Your task to perform on an android device: find which apps use the phone's location Image 0: 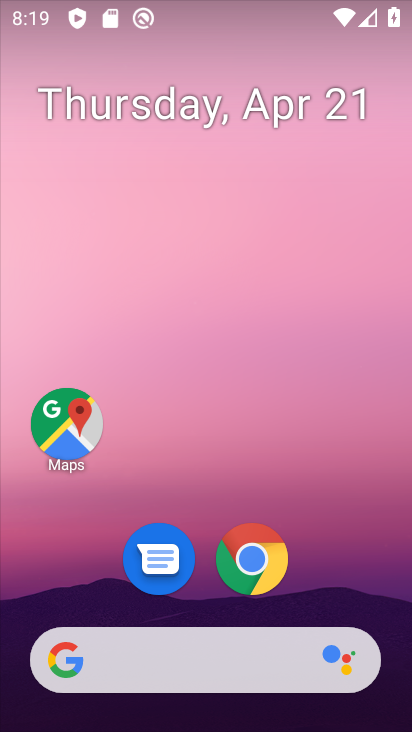
Step 0: drag from (337, 588) to (300, 183)
Your task to perform on an android device: find which apps use the phone's location Image 1: 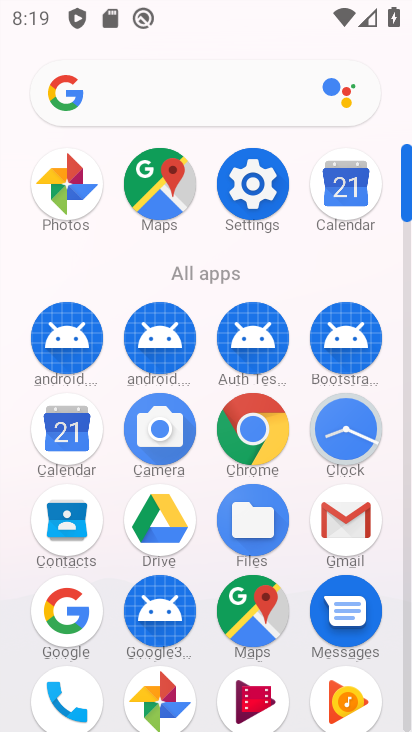
Step 1: click (259, 201)
Your task to perform on an android device: find which apps use the phone's location Image 2: 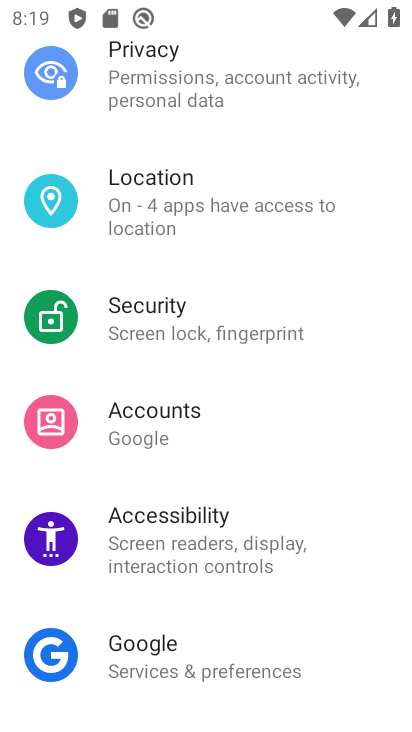
Step 2: drag from (189, 199) to (133, 632)
Your task to perform on an android device: find which apps use the phone's location Image 3: 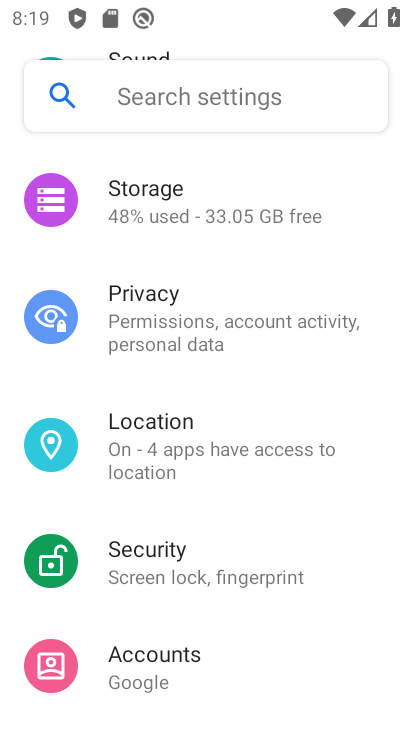
Step 3: drag from (218, 320) to (159, 697)
Your task to perform on an android device: find which apps use the phone's location Image 4: 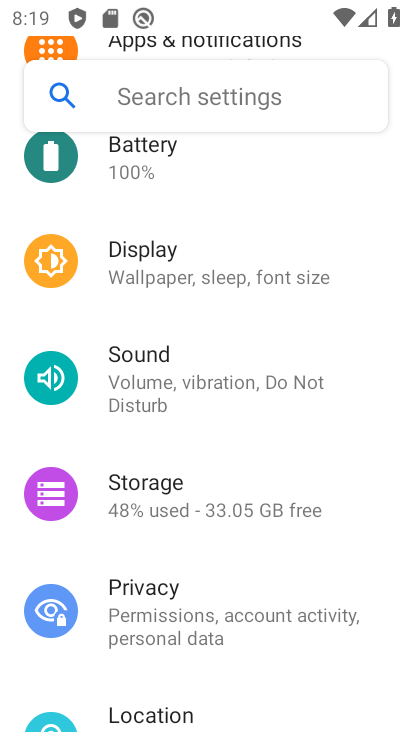
Step 4: drag from (213, 375) to (186, 614)
Your task to perform on an android device: find which apps use the phone's location Image 5: 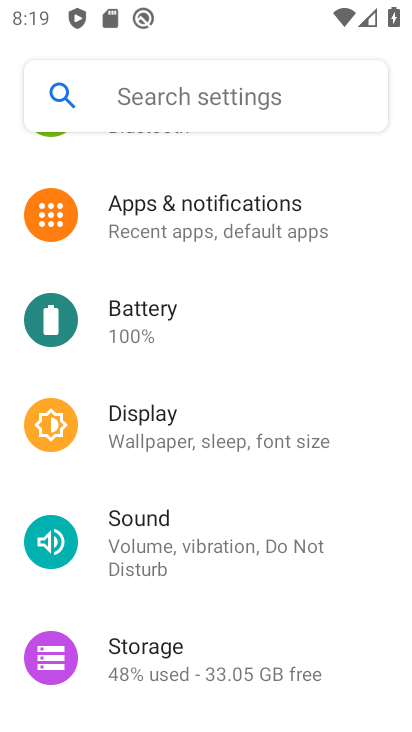
Step 5: drag from (227, 637) to (257, 222)
Your task to perform on an android device: find which apps use the phone's location Image 6: 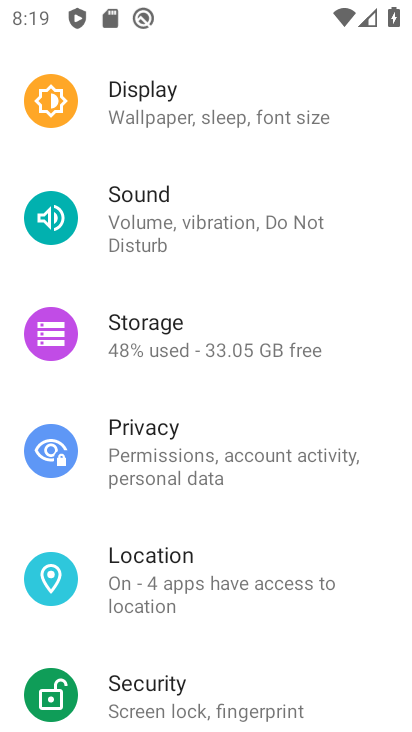
Step 6: click (211, 569)
Your task to perform on an android device: find which apps use the phone's location Image 7: 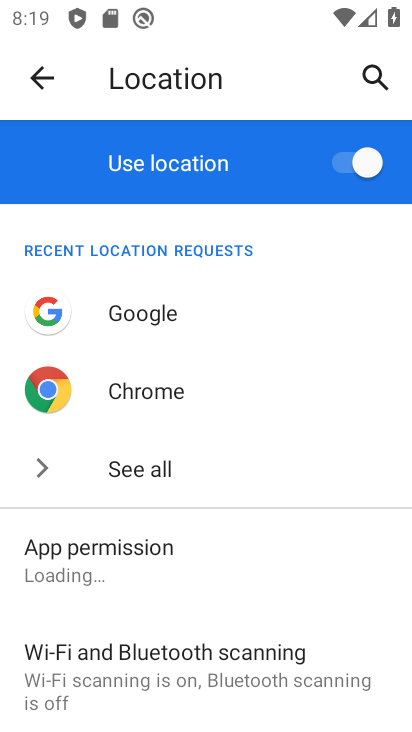
Step 7: click (121, 315)
Your task to perform on an android device: find which apps use the phone's location Image 8: 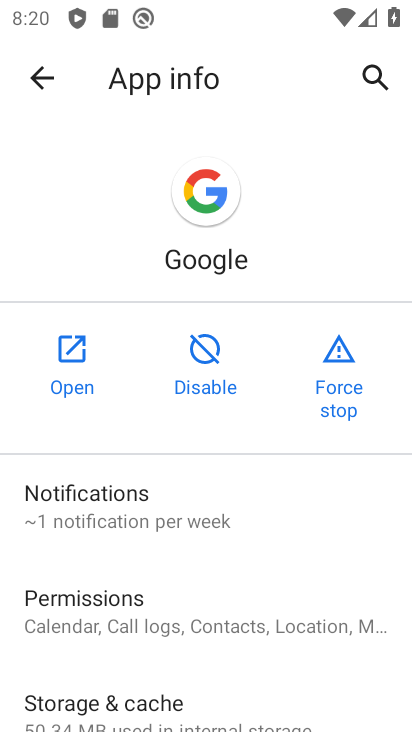
Step 8: click (147, 629)
Your task to perform on an android device: find which apps use the phone's location Image 9: 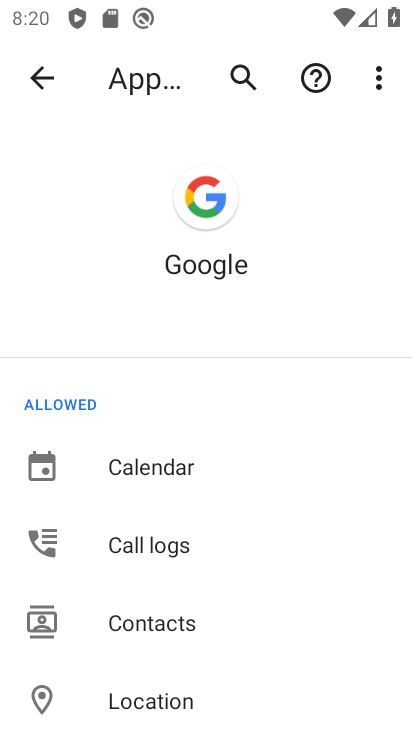
Step 9: click (181, 697)
Your task to perform on an android device: find which apps use the phone's location Image 10: 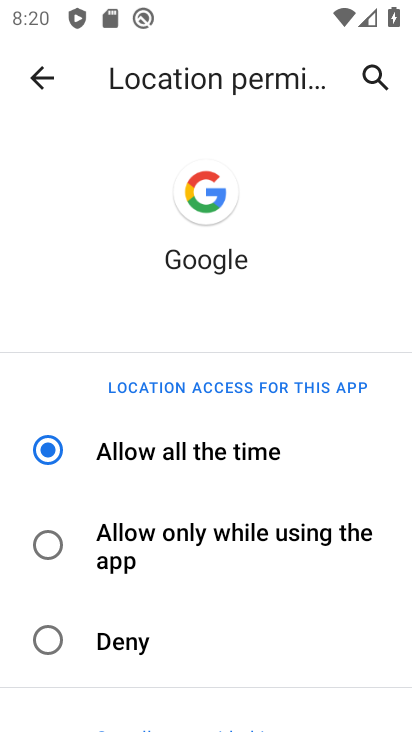
Step 10: task complete